Your task to perform on an android device: Show me the alarms in the clock app Image 0: 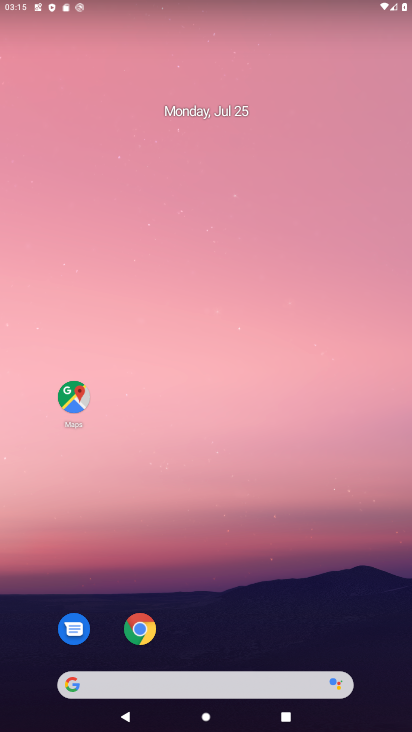
Step 0: drag from (300, 620) to (274, 7)
Your task to perform on an android device: Show me the alarms in the clock app Image 1: 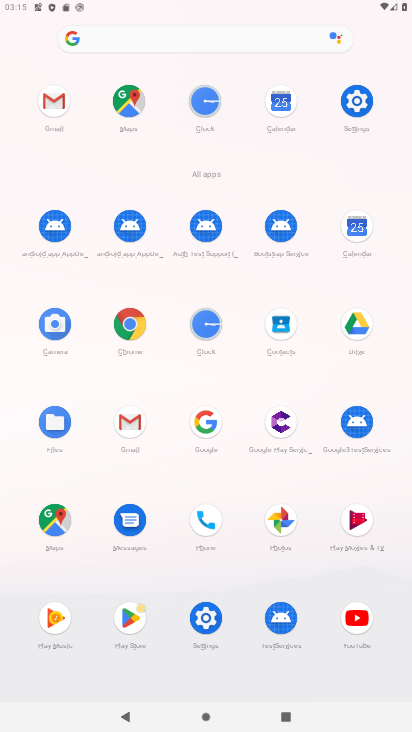
Step 1: click (215, 322)
Your task to perform on an android device: Show me the alarms in the clock app Image 2: 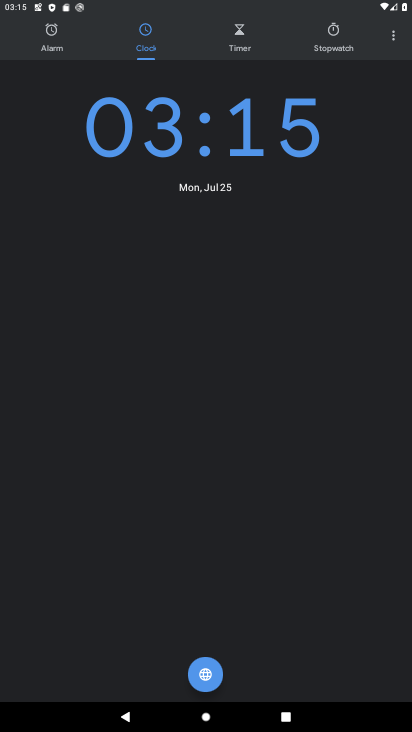
Step 2: click (55, 29)
Your task to perform on an android device: Show me the alarms in the clock app Image 3: 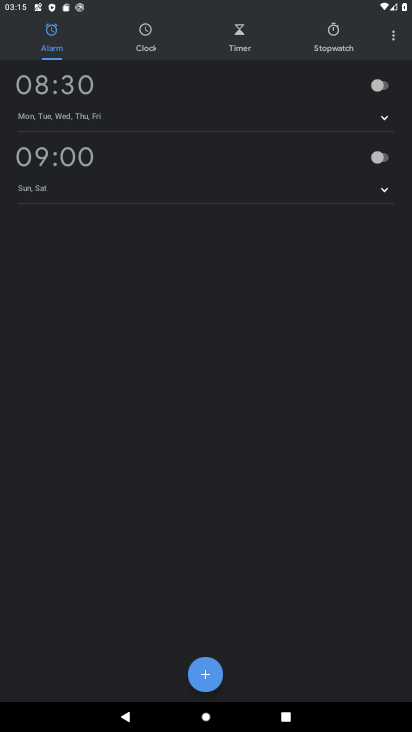
Step 3: task complete